Your task to perform on an android device: Open Wikipedia Image 0: 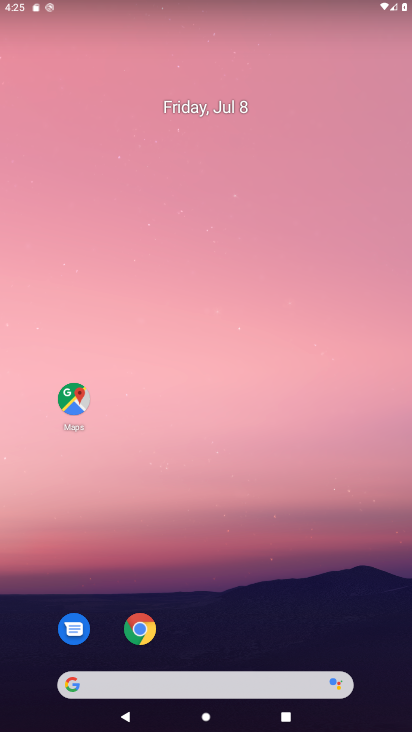
Step 0: click (151, 617)
Your task to perform on an android device: Open Wikipedia Image 1: 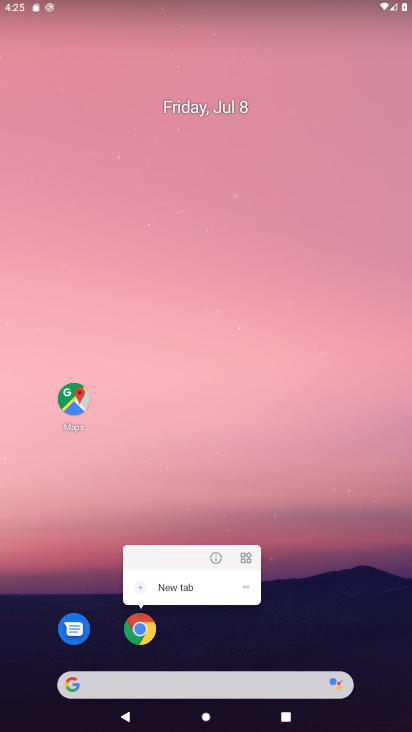
Step 1: click (146, 632)
Your task to perform on an android device: Open Wikipedia Image 2: 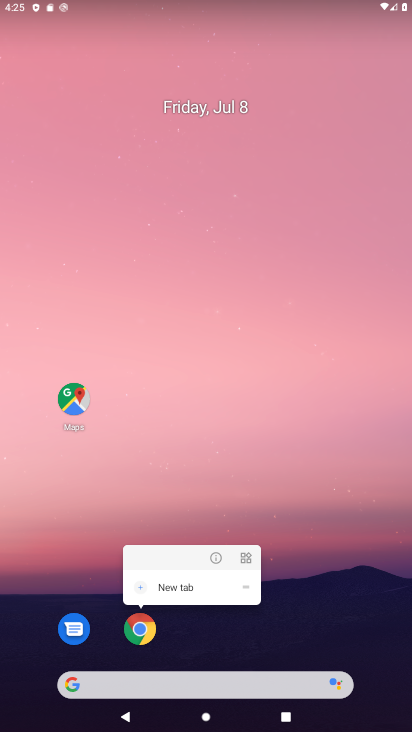
Step 2: click (142, 631)
Your task to perform on an android device: Open Wikipedia Image 3: 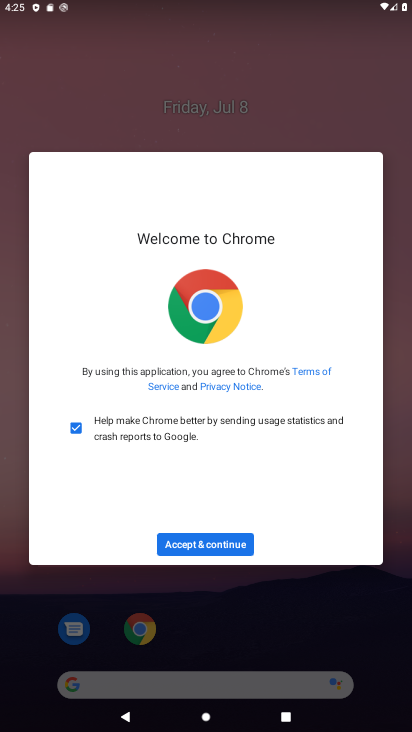
Step 3: click (213, 536)
Your task to perform on an android device: Open Wikipedia Image 4: 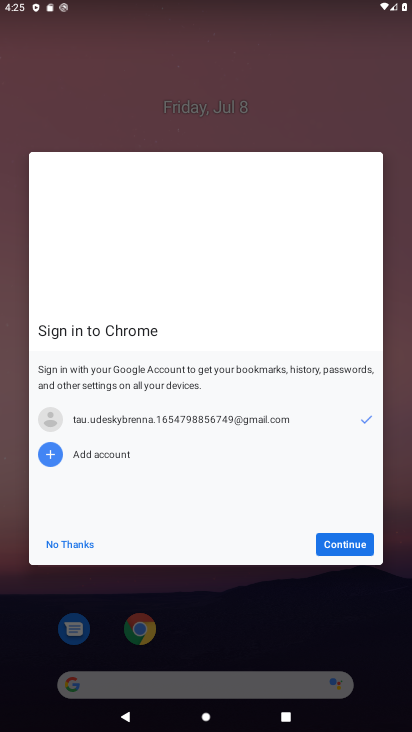
Step 4: click (362, 547)
Your task to perform on an android device: Open Wikipedia Image 5: 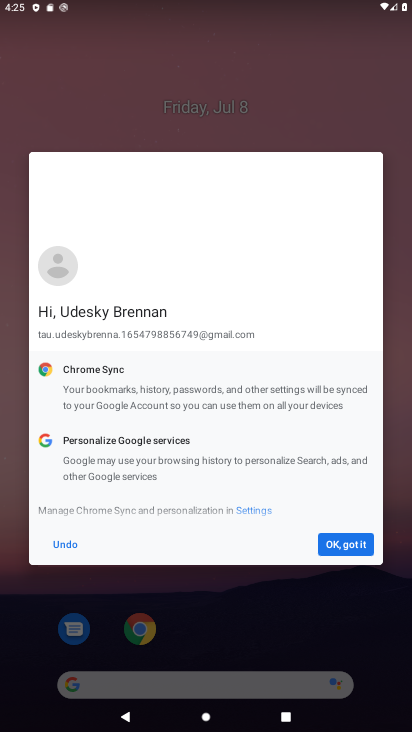
Step 5: click (362, 547)
Your task to perform on an android device: Open Wikipedia Image 6: 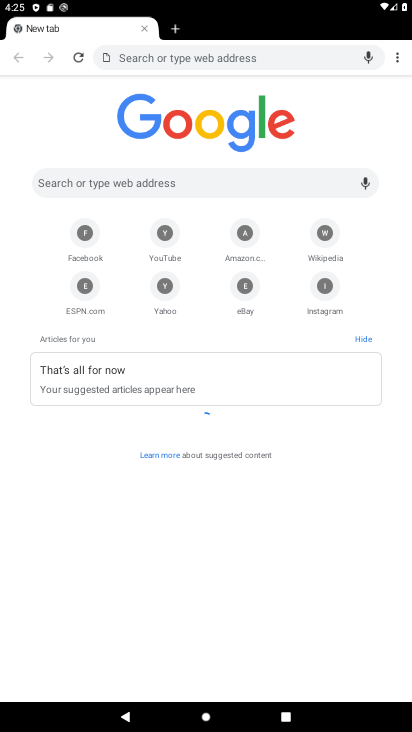
Step 6: click (334, 252)
Your task to perform on an android device: Open Wikipedia Image 7: 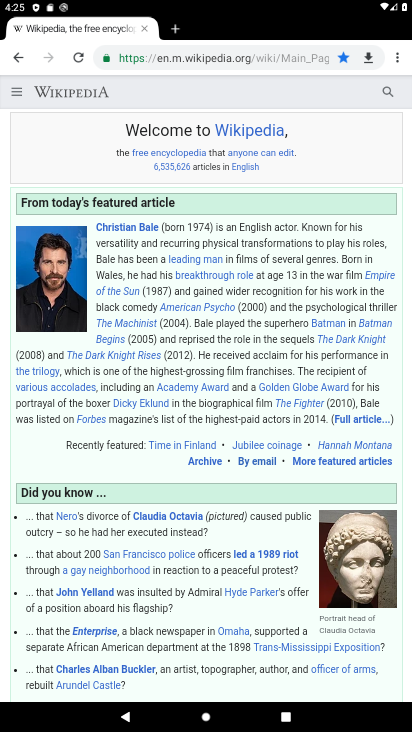
Step 7: task complete